Your task to perform on an android device: Go to privacy settings Image 0: 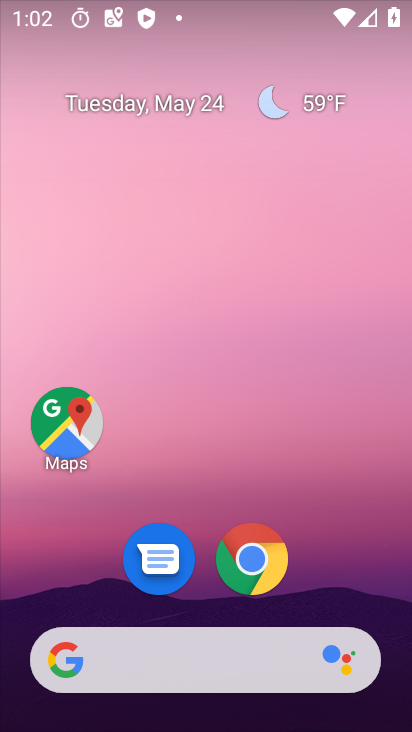
Step 0: click (252, 559)
Your task to perform on an android device: Go to privacy settings Image 1: 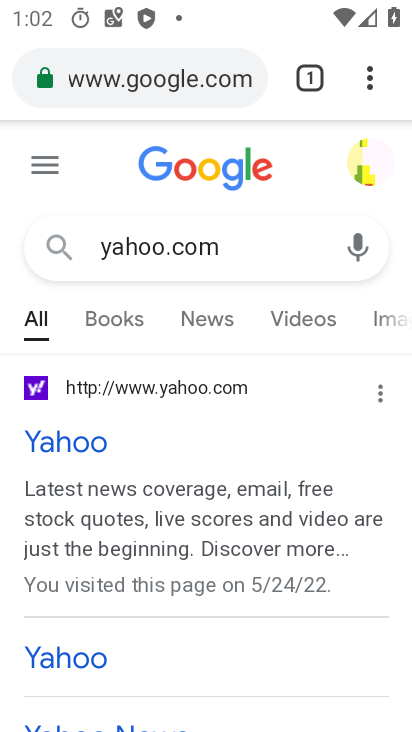
Step 1: click (366, 75)
Your task to perform on an android device: Go to privacy settings Image 2: 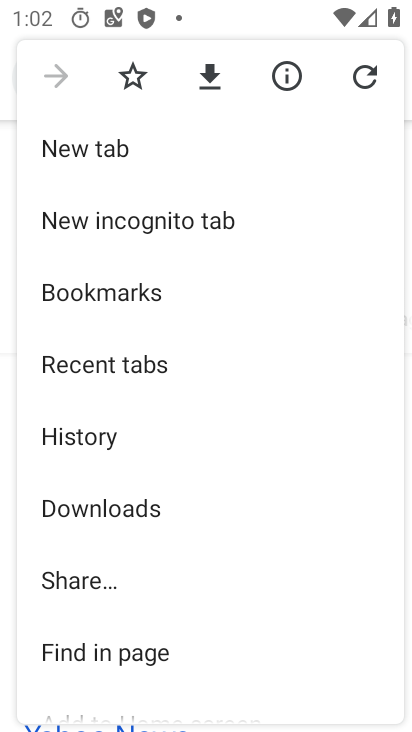
Step 2: drag from (224, 683) to (226, 354)
Your task to perform on an android device: Go to privacy settings Image 3: 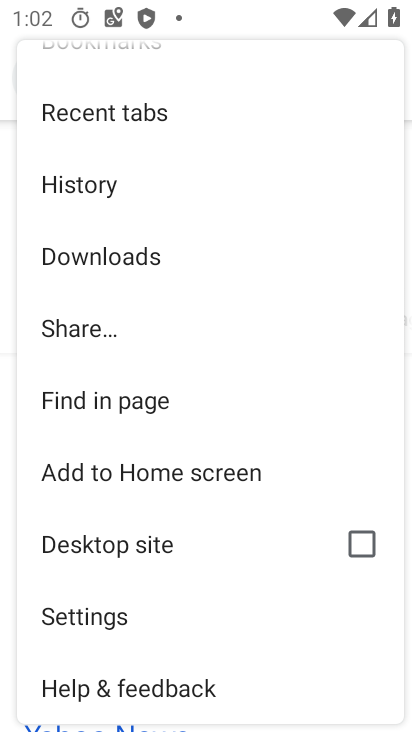
Step 3: click (81, 625)
Your task to perform on an android device: Go to privacy settings Image 4: 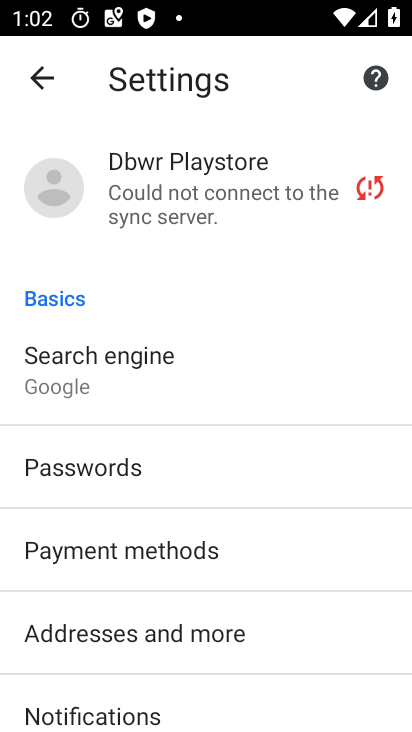
Step 4: drag from (317, 695) to (318, 275)
Your task to perform on an android device: Go to privacy settings Image 5: 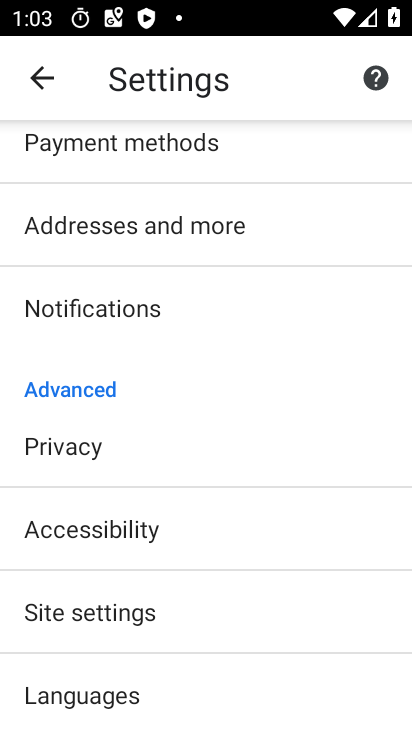
Step 5: click (69, 441)
Your task to perform on an android device: Go to privacy settings Image 6: 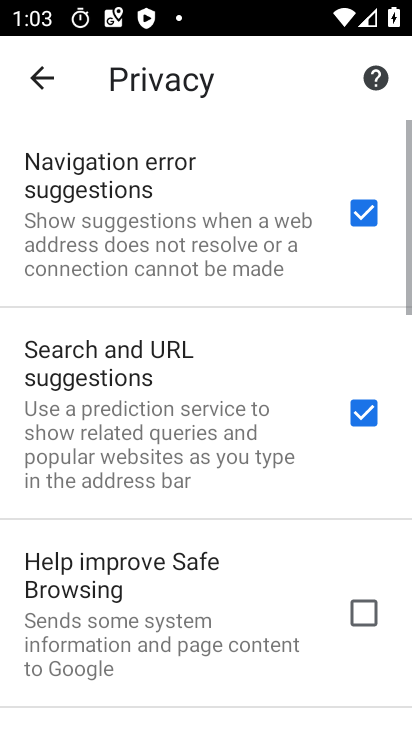
Step 6: task complete